Your task to perform on an android device: find which apps use the phone's location Image 0: 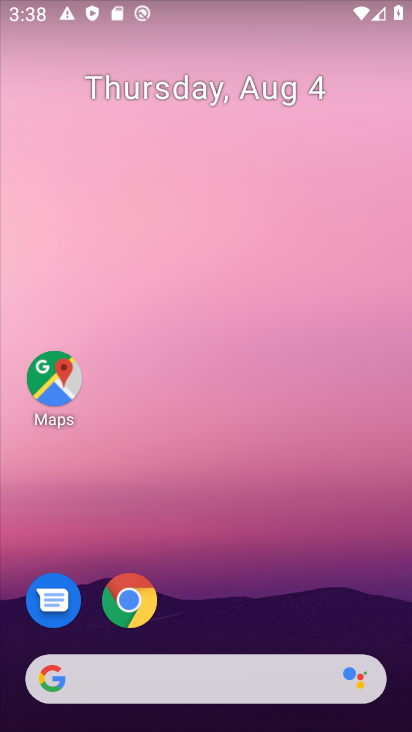
Step 0: drag from (310, 607) to (320, 123)
Your task to perform on an android device: find which apps use the phone's location Image 1: 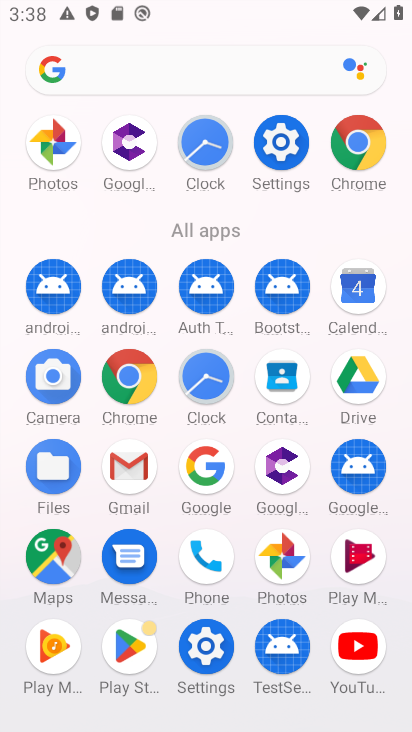
Step 1: drag from (240, 570) to (299, 132)
Your task to perform on an android device: find which apps use the phone's location Image 2: 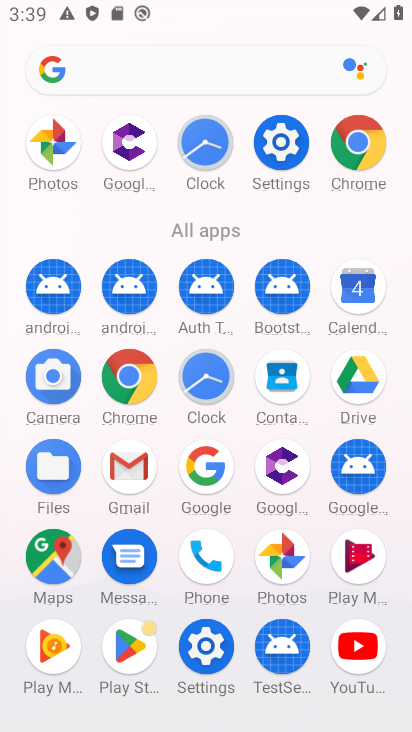
Step 2: click (197, 656)
Your task to perform on an android device: find which apps use the phone's location Image 3: 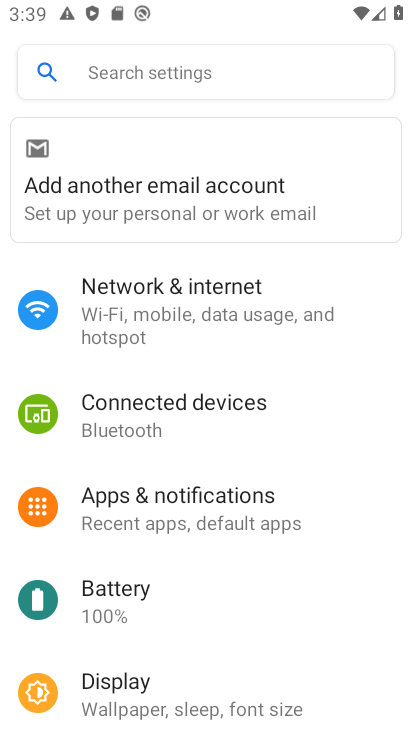
Step 3: drag from (243, 602) to (278, 179)
Your task to perform on an android device: find which apps use the phone's location Image 4: 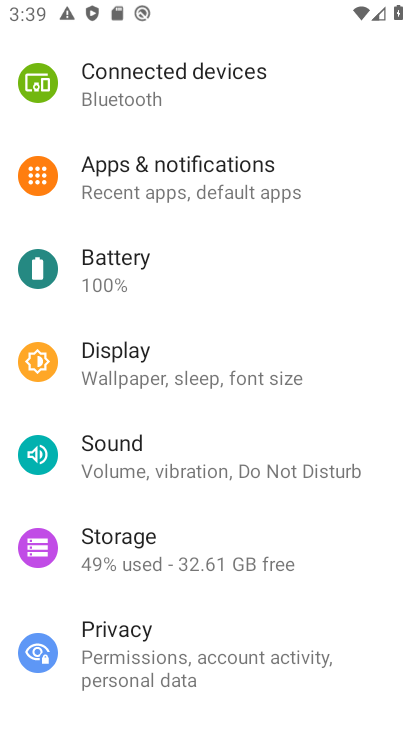
Step 4: drag from (261, 623) to (325, 239)
Your task to perform on an android device: find which apps use the phone's location Image 5: 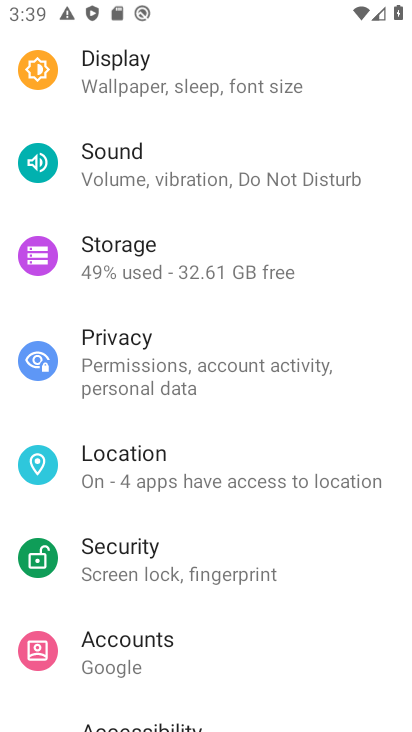
Step 5: click (172, 478)
Your task to perform on an android device: find which apps use the phone's location Image 6: 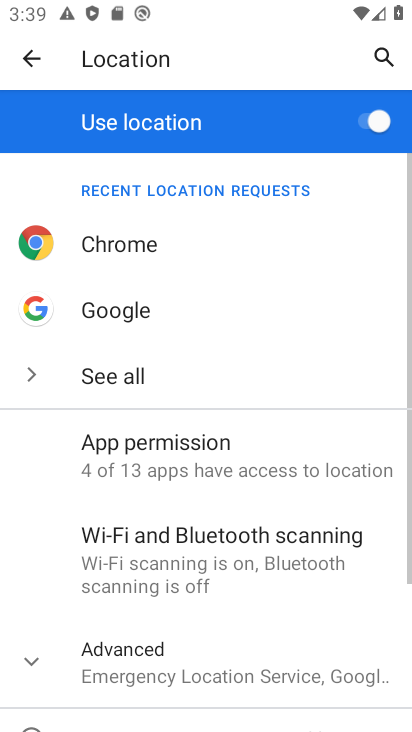
Step 6: drag from (307, 624) to (410, 280)
Your task to perform on an android device: find which apps use the phone's location Image 7: 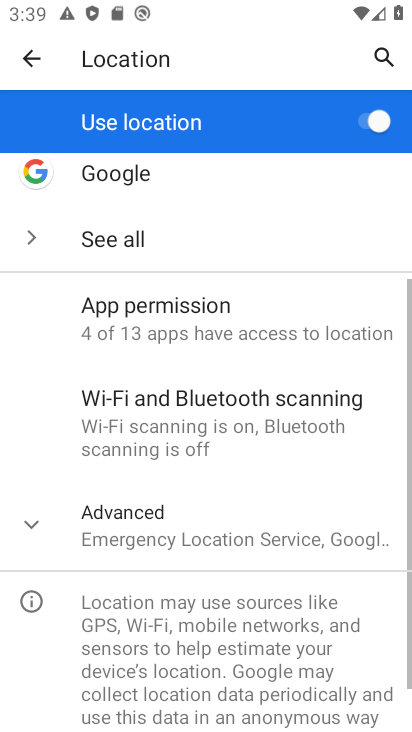
Step 7: click (175, 480)
Your task to perform on an android device: find which apps use the phone's location Image 8: 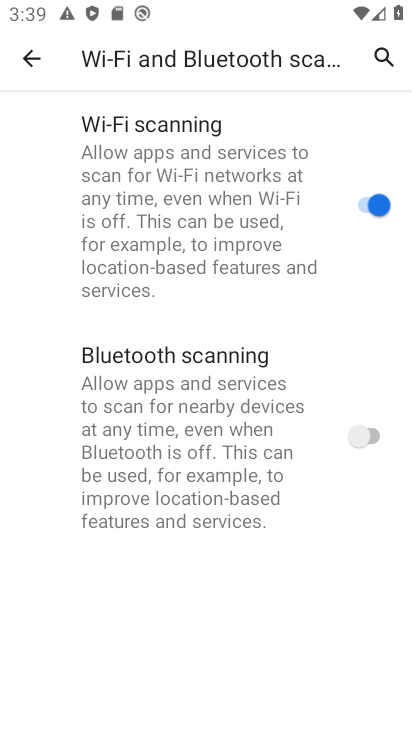
Step 8: click (43, 62)
Your task to perform on an android device: find which apps use the phone's location Image 9: 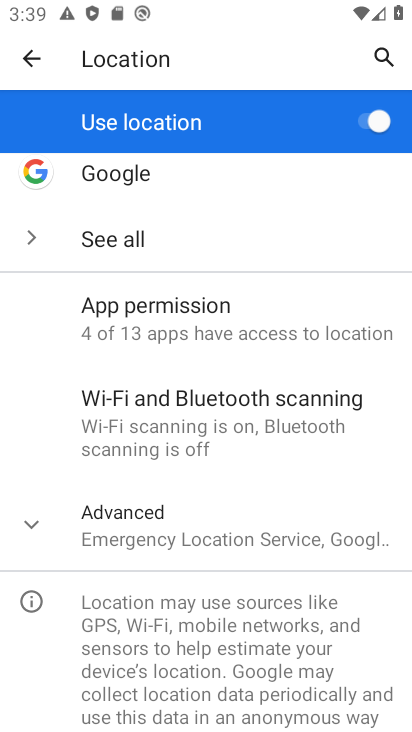
Step 9: drag from (268, 622) to (274, 240)
Your task to perform on an android device: find which apps use the phone's location Image 10: 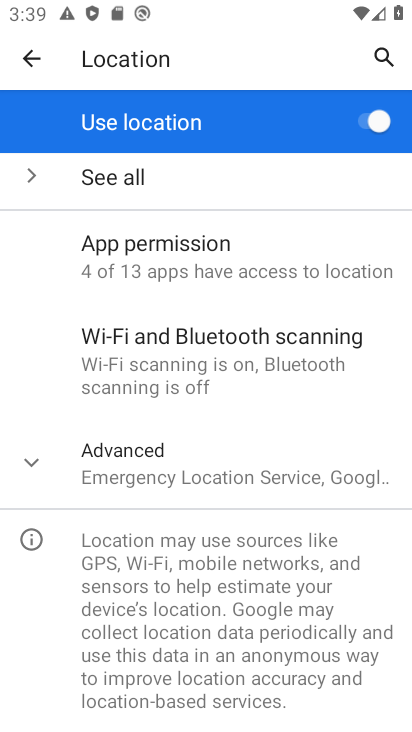
Step 10: click (185, 477)
Your task to perform on an android device: find which apps use the phone's location Image 11: 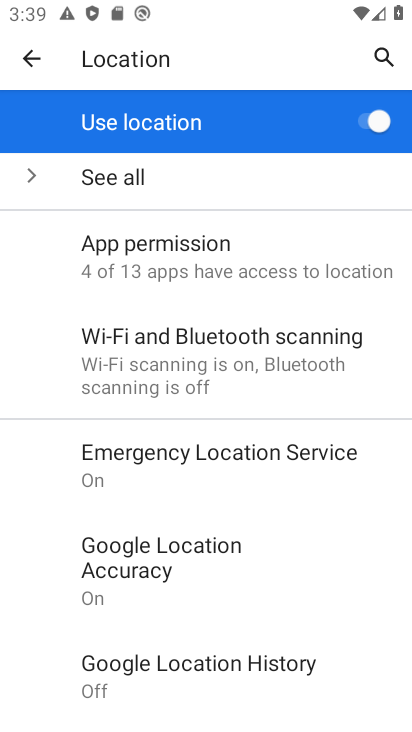
Step 11: drag from (249, 626) to (331, 226)
Your task to perform on an android device: find which apps use the phone's location Image 12: 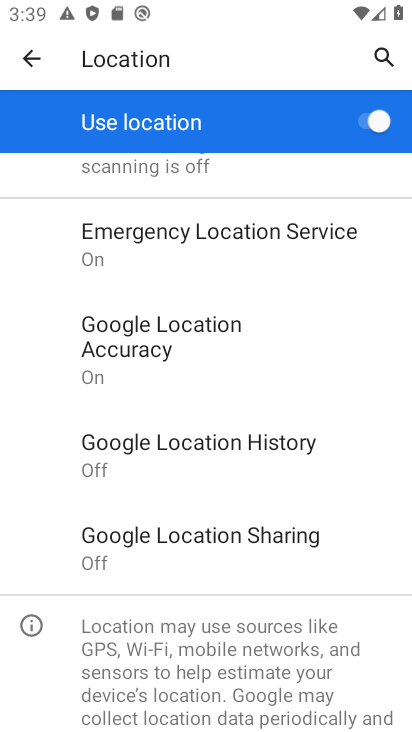
Step 12: drag from (229, 564) to (294, 206)
Your task to perform on an android device: find which apps use the phone's location Image 13: 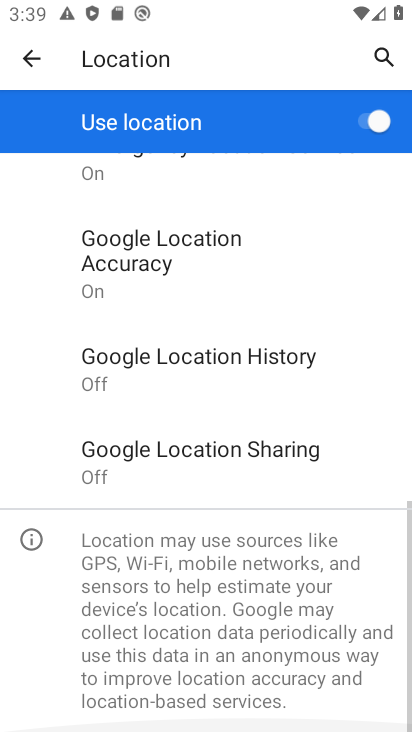
Step 13: drag from (282, 226) to (273, 584)
Your task to perform on an android device: find which apps use the phone's location Image 14: 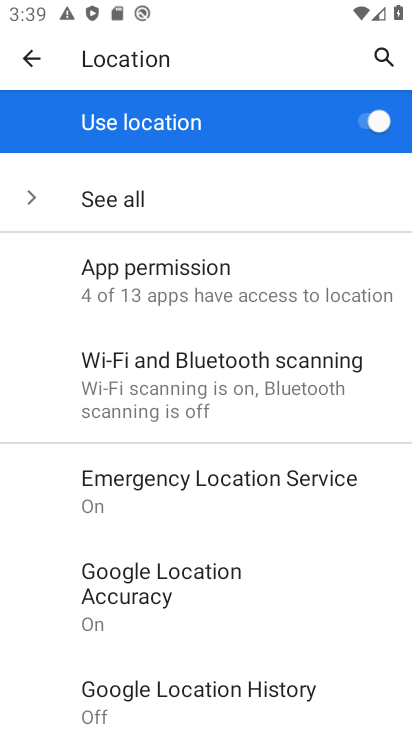
Step 14: click (194, 258)
Your task to perform on an android device: find which apps use the phone's location Image 15: 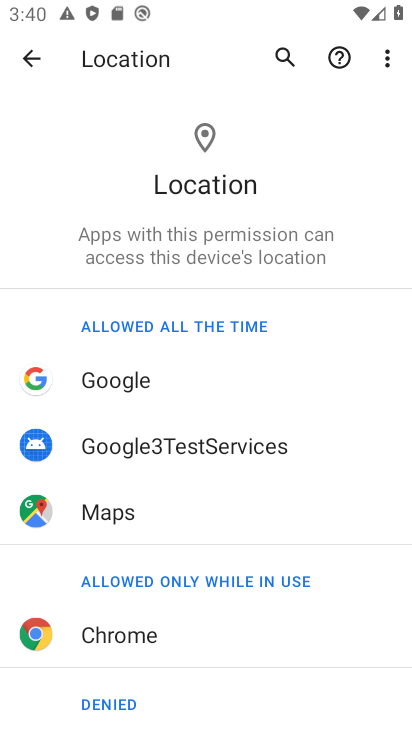
Step 15: task complete